Your task to perform on an android device: What's the weather today? Image 0: 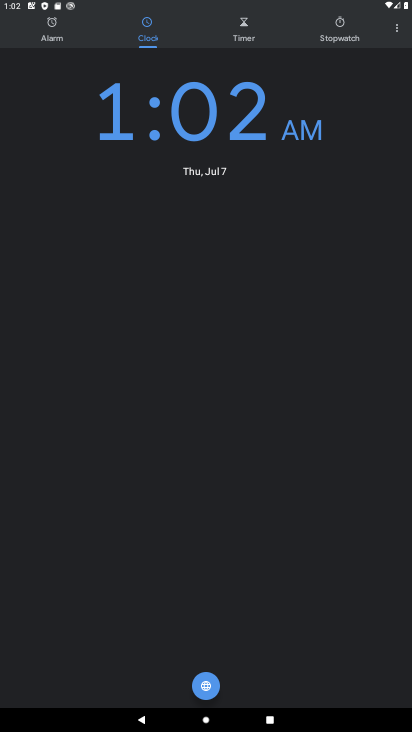
Step 0: press home button
Your task to perform on an android device: What's the weather today? Image 1: 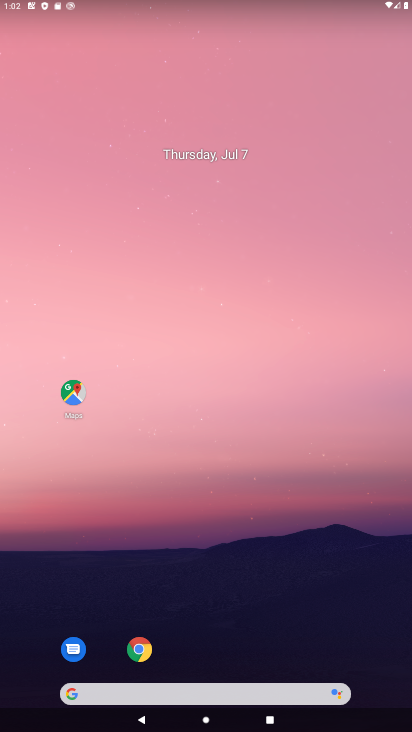
Step 1: click (198, 689)
Your task to perform on an android device: What's the weather today? Image 2: 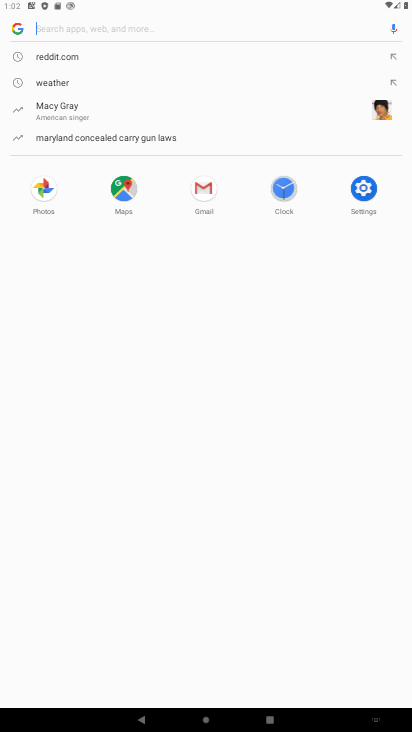
Step 2: type "What's the weather today?"
Your task to perform on an android device: What's the weather today? Image 3: 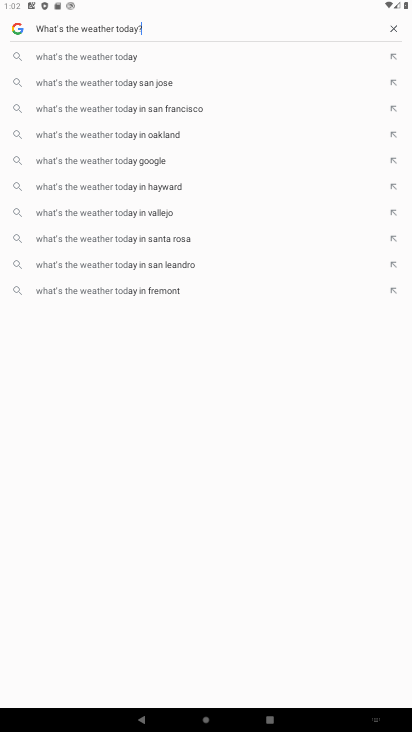
Step 3: press enter
Your task to perform on an android device: What's the weather today? Image 4: 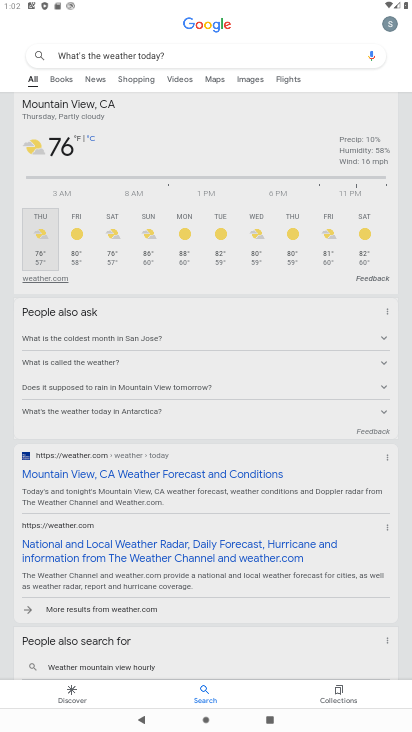
Step 4: task complete